Your task to perform on an android device: manage bookmarks in the chrome app Image 0: 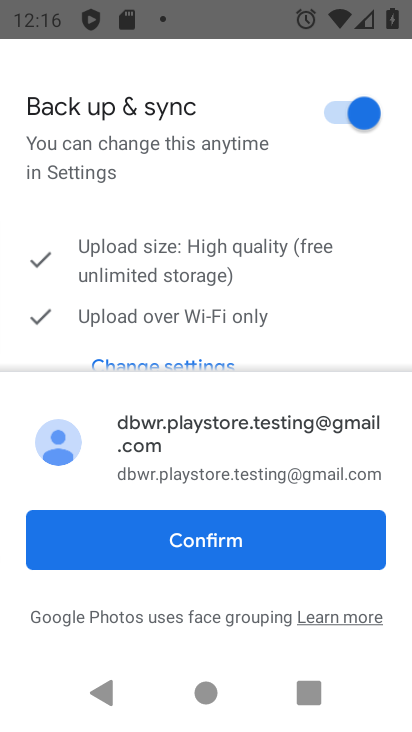
Step 0: click (207, 545)
Your task to perform on an android device: manage bookmarks in the chrome app Image 1: 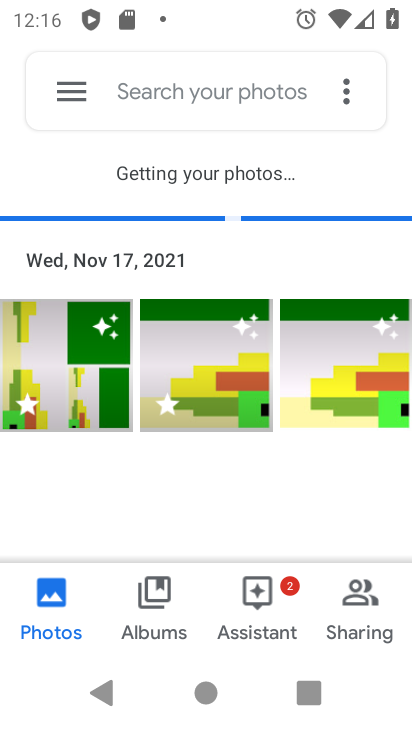
Step 1: press home button
Your task to perform on an android device: manage bookmarks in the chrome app Image 2: 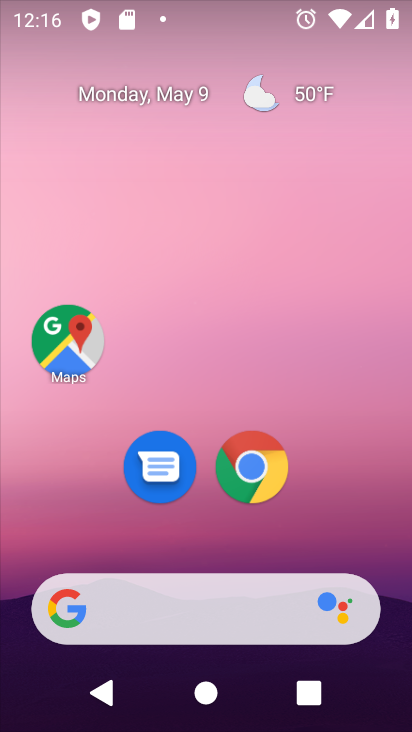
Step 2: click (251, 461)
Your task to perform on an android device: manage bookmarks in the chrome app Image 3: 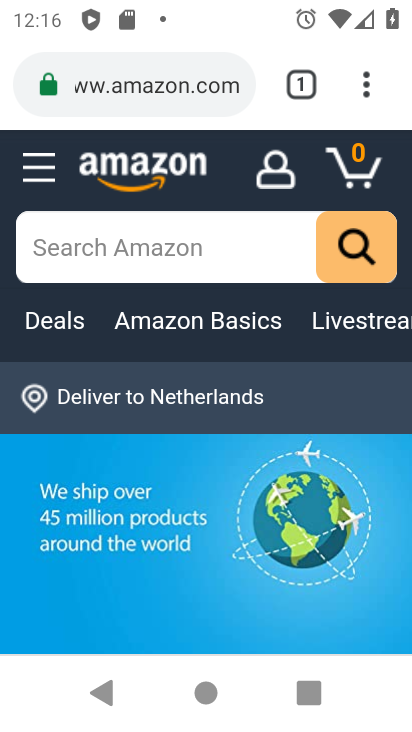
Step 3: click (366, 77)
Your task to perform on an android device: manage bookmarks in the chrome app Image 4: 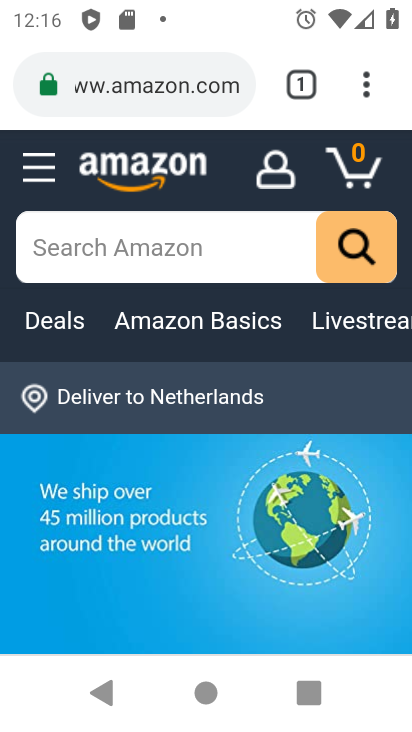
Step 4: click (366, 77)
Your task to perform on an android device: manage bookmarks in the chrome app Image 5: 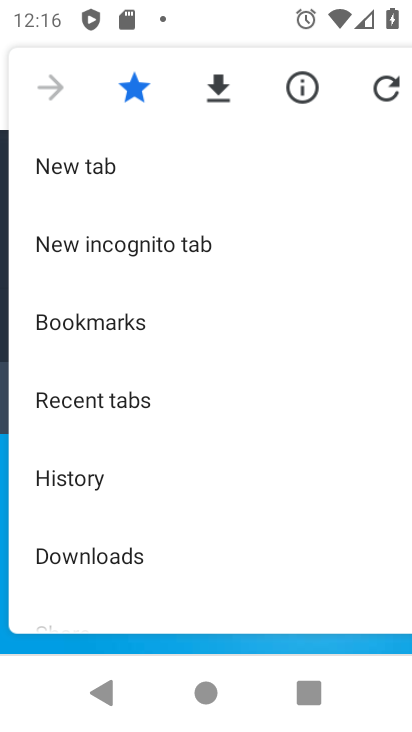
Step 5: click (158, 320)
Your task to perform on an android device: manage bookmarks in the chrome app Image 6: 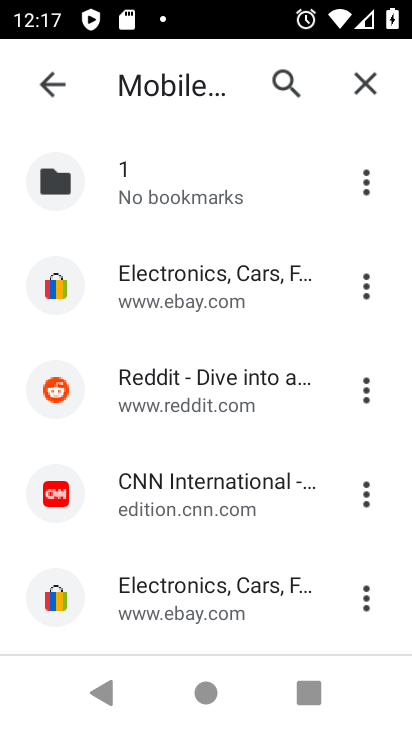
Step 6: click (358, 590)
Your task to perform on an android device: manage bookmarks in the chrome app Image 7: 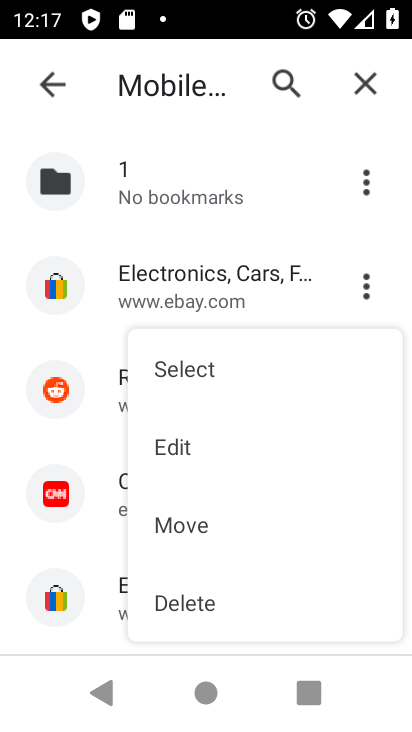
Step 7: click (221, 525)
Your task to perform on an android device: manage bookmarks in the chrome app Image 8: 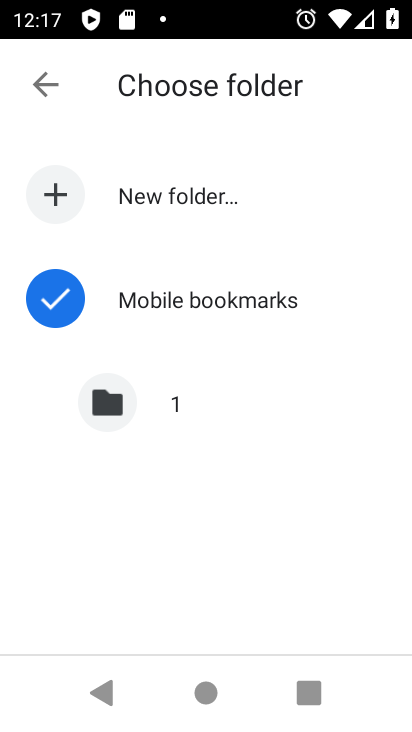
Step 8: task complete